Your task to perform on an android device: Go to battery settings Image 0: 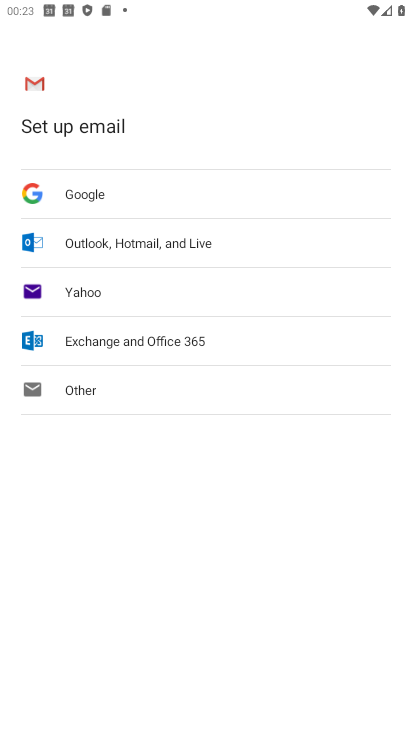
Step 0: press home button
Your task to perform on an android device: Go to battery settings Image 1: 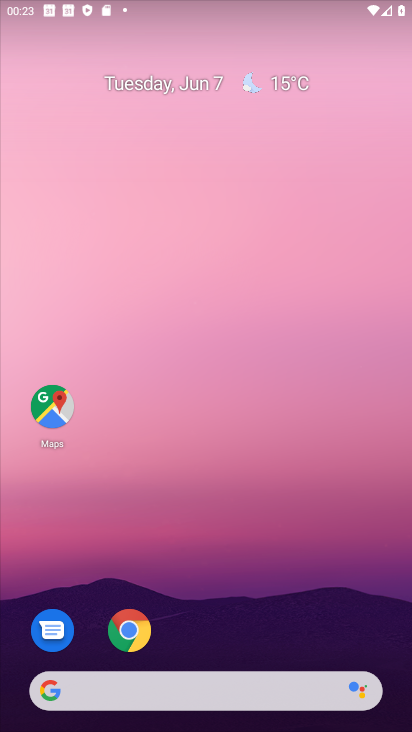
Step 1: drag from (335, 627) to (333, 8)
Your task to perform on an android device: Go to battery settings Image 2: 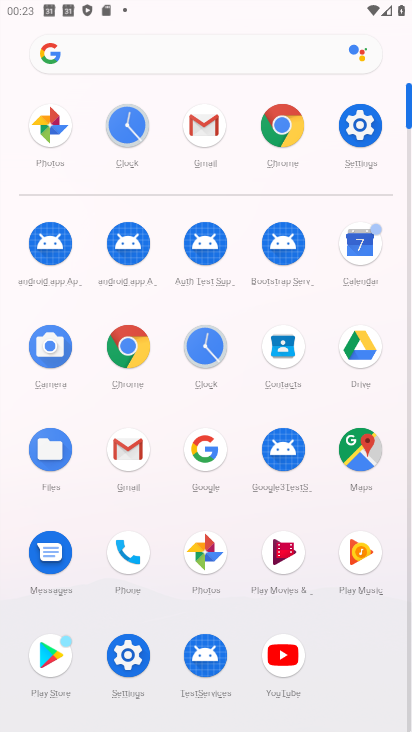
Step 2: click (129, 664)
Your task to perform on an android device: Go to battery settings Image 3: 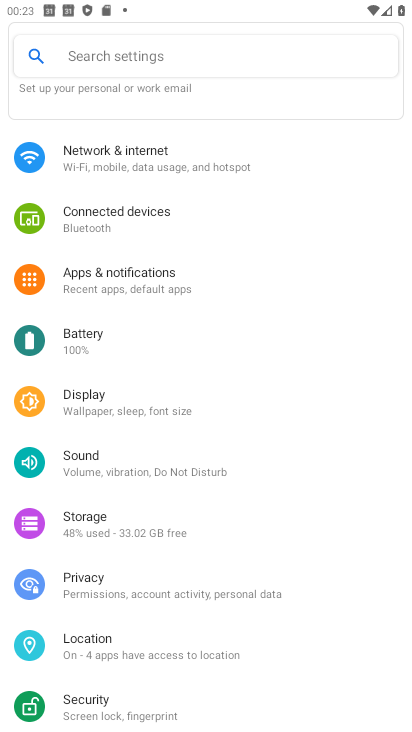
Step 3: drag from (165, 559) to (206, 377)
Your task to perform on an android device: Go to battery settings Image 4: 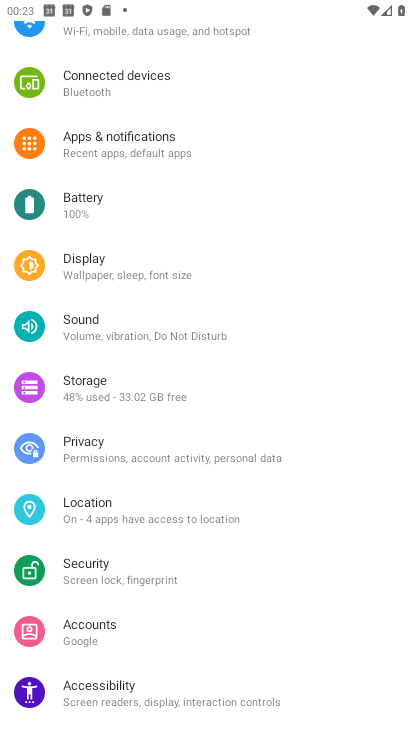
Step 4: drag from (173, 190) to (197, 390)
Your task to perform on an android device: Go to battery settings Image 5: 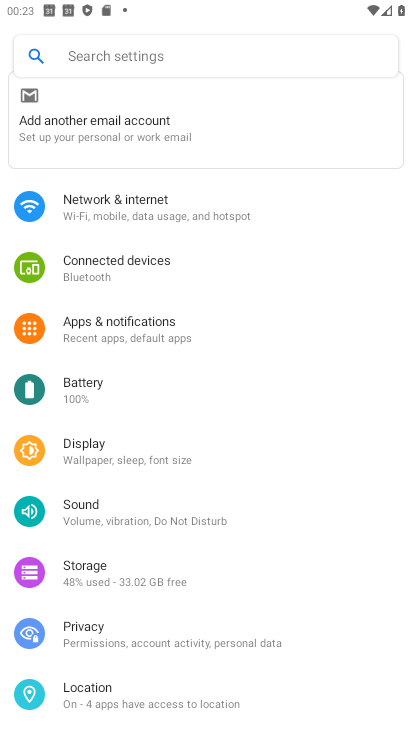
Step 5: click (145, 390)
Your task to perform on an android device: Go to battery settings Image 6: 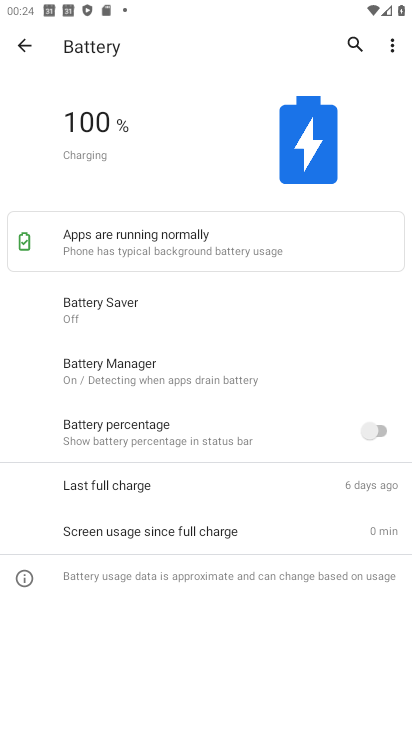
Step 6: click (393, 49)
Your task to perform on an android device: Go to battery settings Image 7: 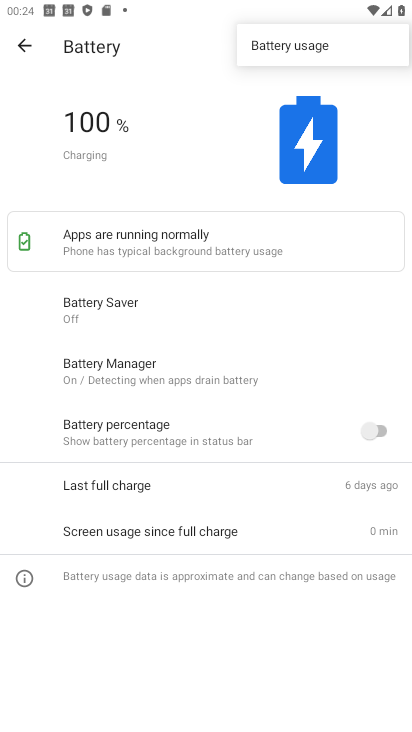
Step 7: click (307, 47)
Your task to perform on an android device: Go to battery settings Image 8: 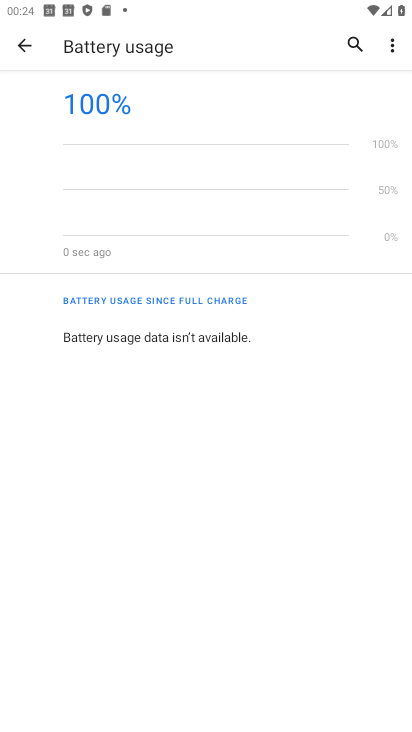
Step 8: task complete